Your task to perform on an android device: Go to battery settings Image 0: 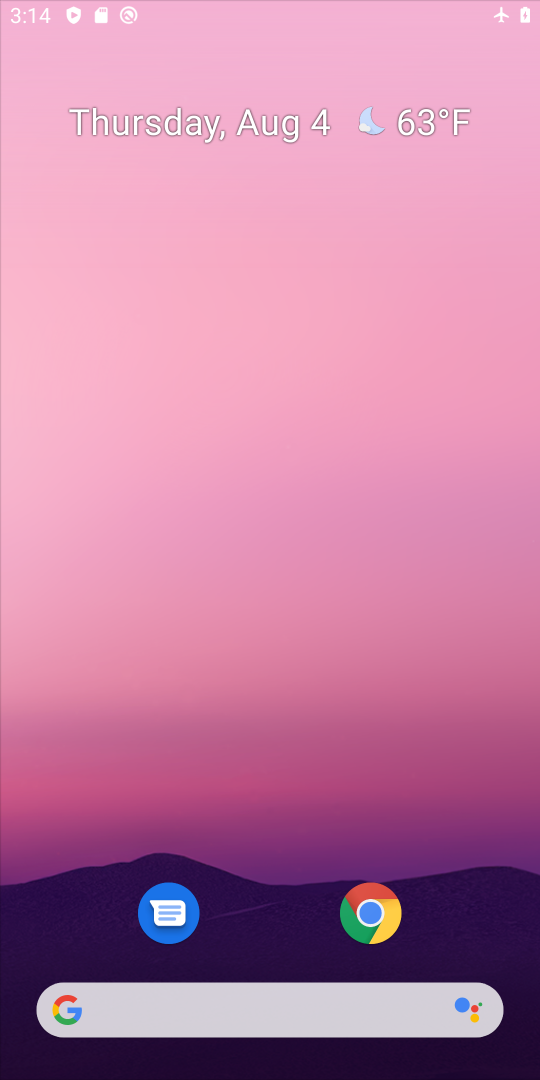
Step 0: press home button
Your task to perform on an android device: Go to battery settings Image 1: 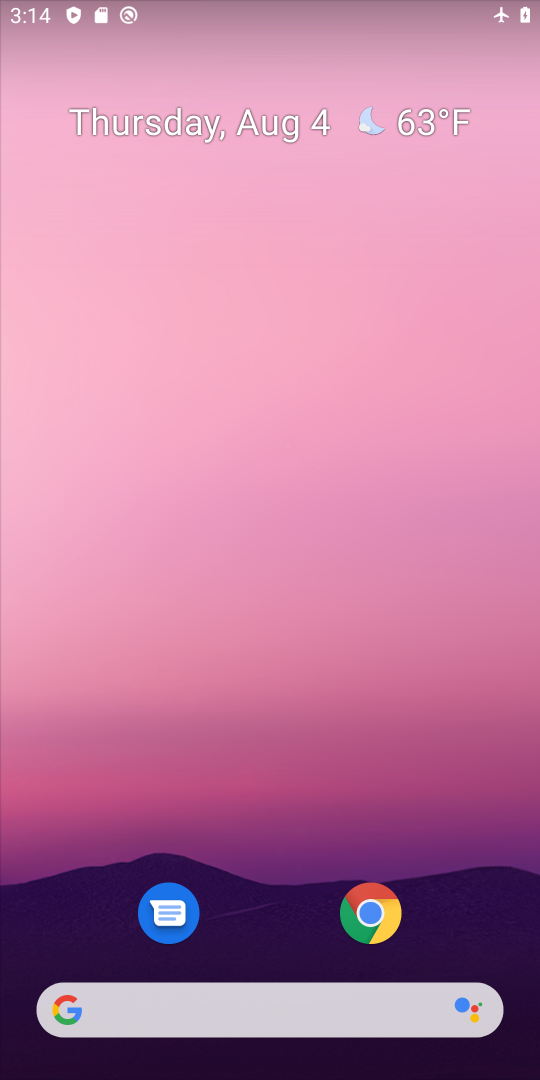
Step 1: drag from (274, 993) to (269, 0)
Your task to perform on an android device: Go to battery settings Image 2: 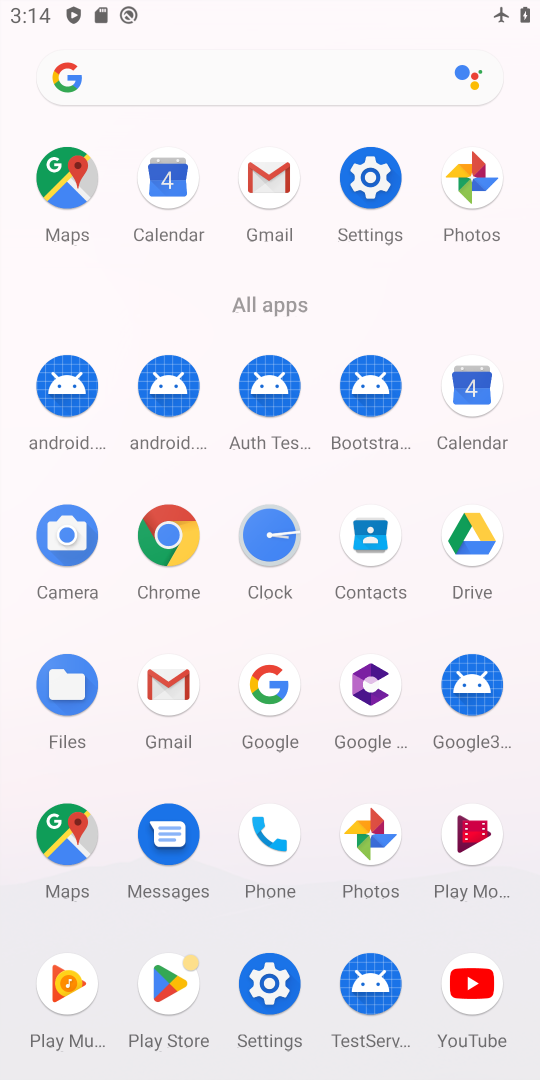
Step 2: click (367, 175)
Your task to perform on an android device: Go to battery settings Image 3: 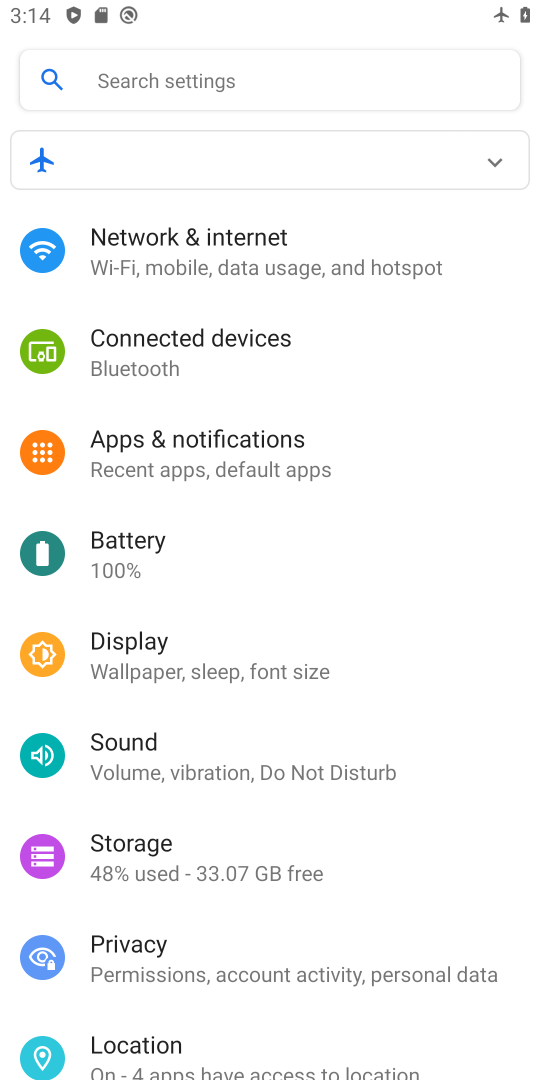
Step 3: click (141, 536)
Your task to perform on an android device: Go to battery settings Image 4: 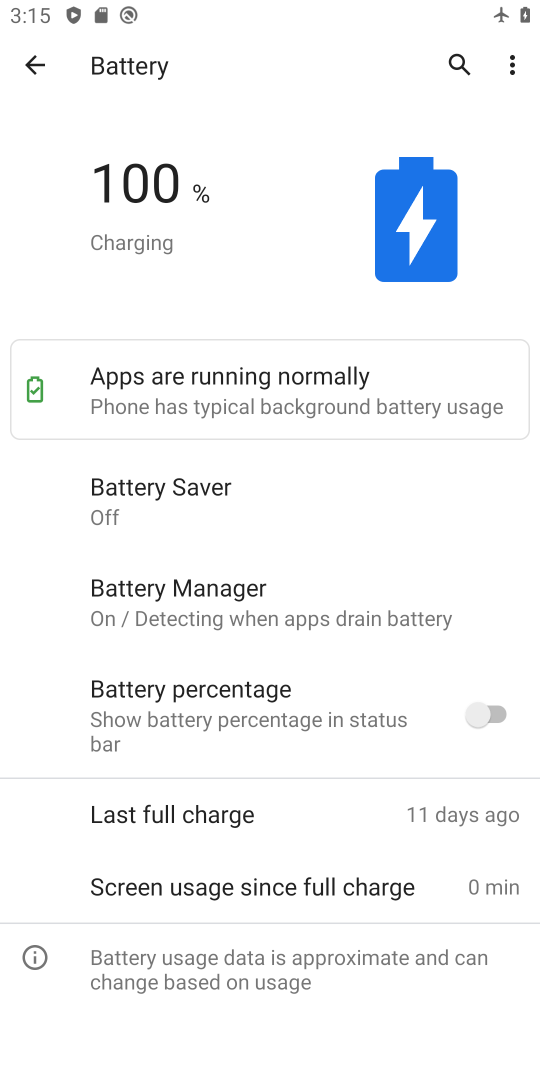
Step 4: task complete